Your task to perform on an android device: Do I have any events today? Image 0: 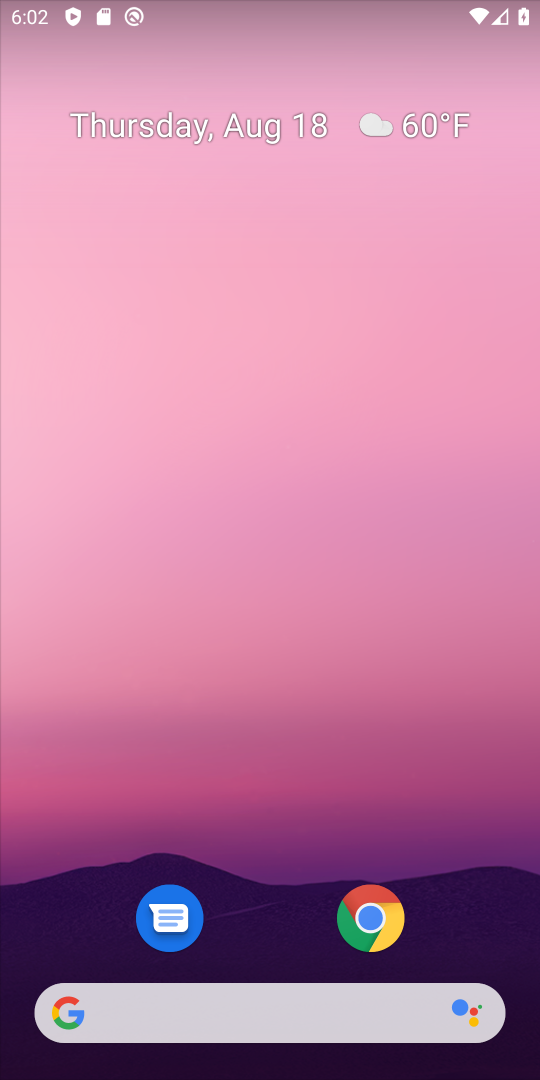
Step 0: drag from (259, 942) to (362, 92)
Your task to perform on an android device: Do I have any events today? Image 1: 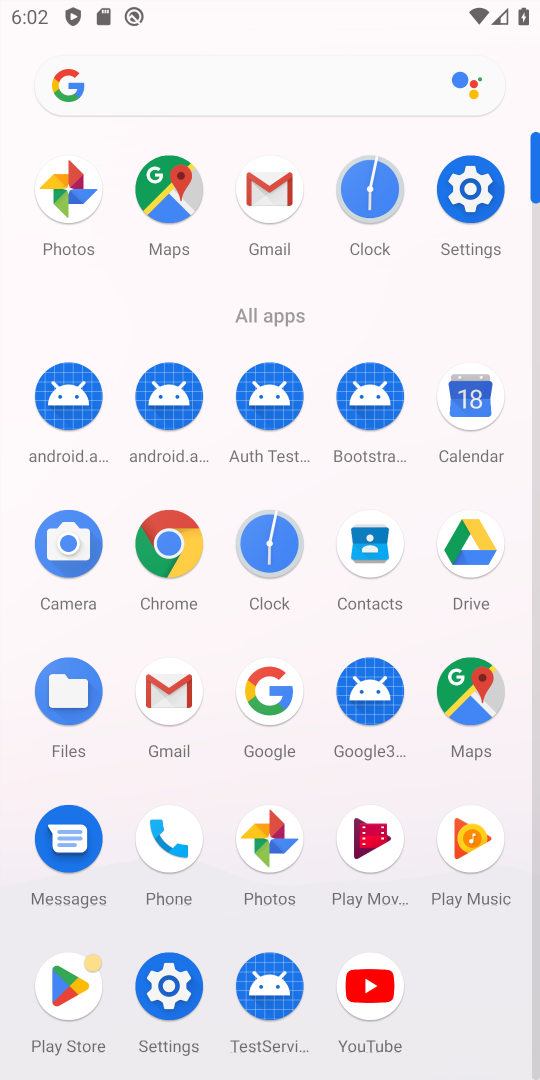
Step 1: click (474, 398)
Your task to perform on an android device: Do I have any events today? Image 2: 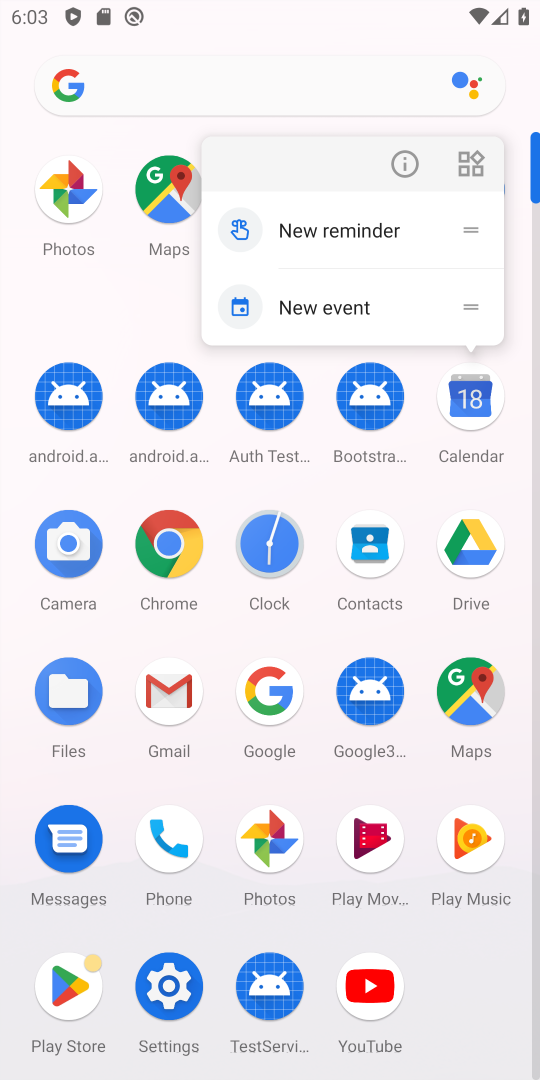
Step 2: click (468, 418)
Your task to perform on an android device: Do I have any events today? Image 3: 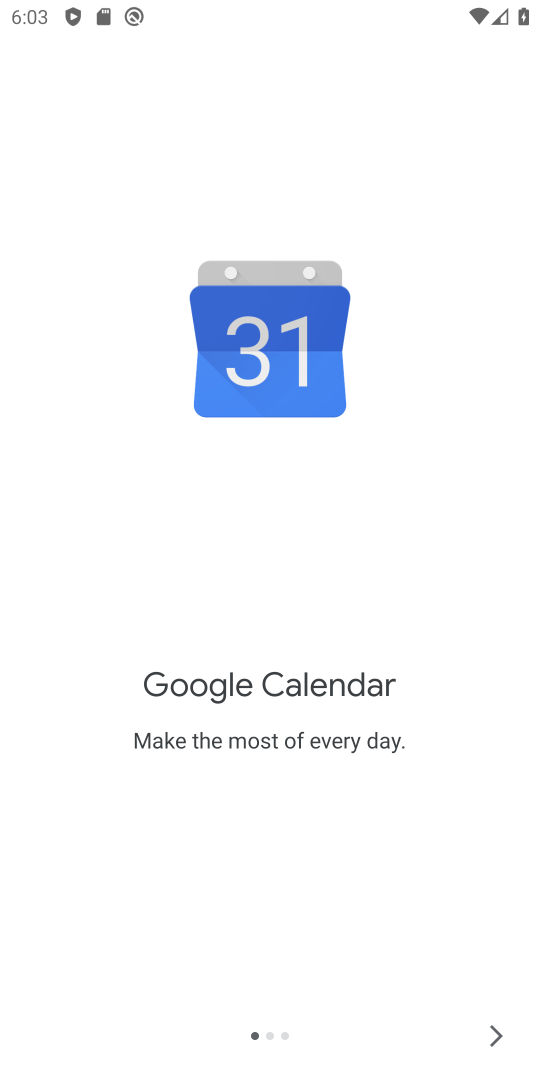
Step 3: click (499, 1030)
Your task to perform on an android device: Do I have any events today? Image 4: 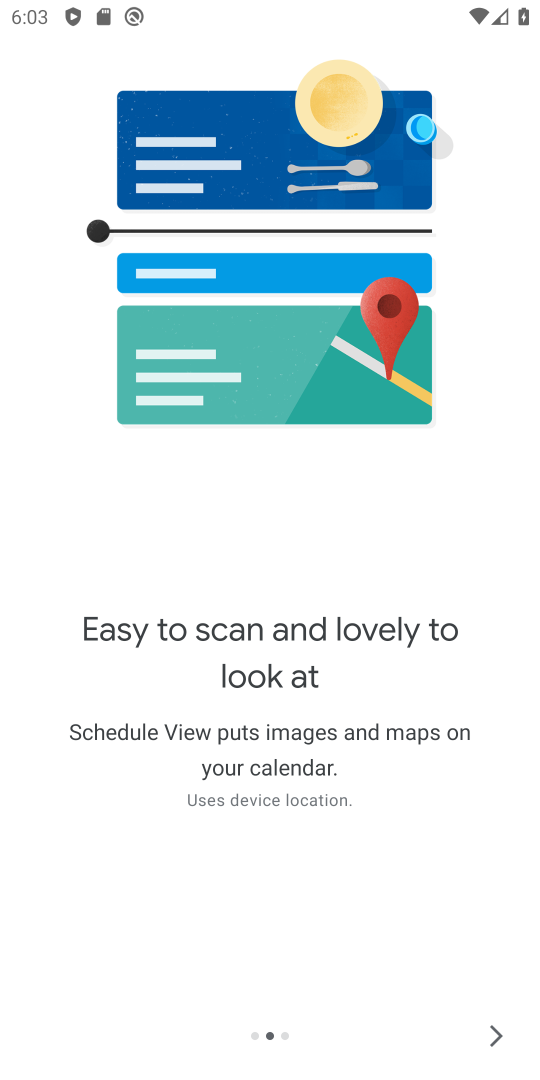
Step 4: click (497, 1028)
Your task to perform on an android device: Do I have any events today? Image 5: 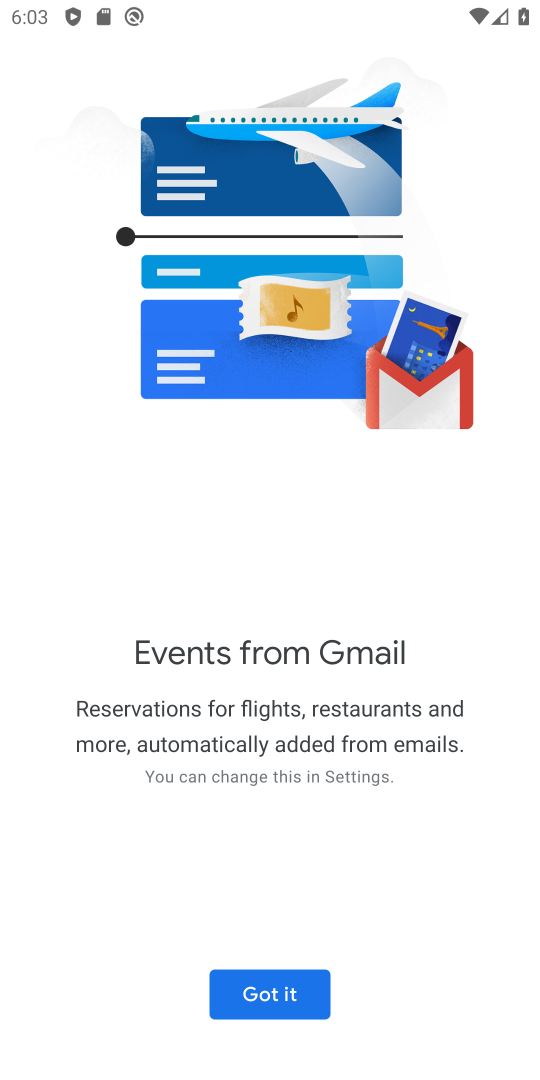
Step 5: click (275, 1003)
Your task to perform on an android device: Do I have any events today? Image 6: 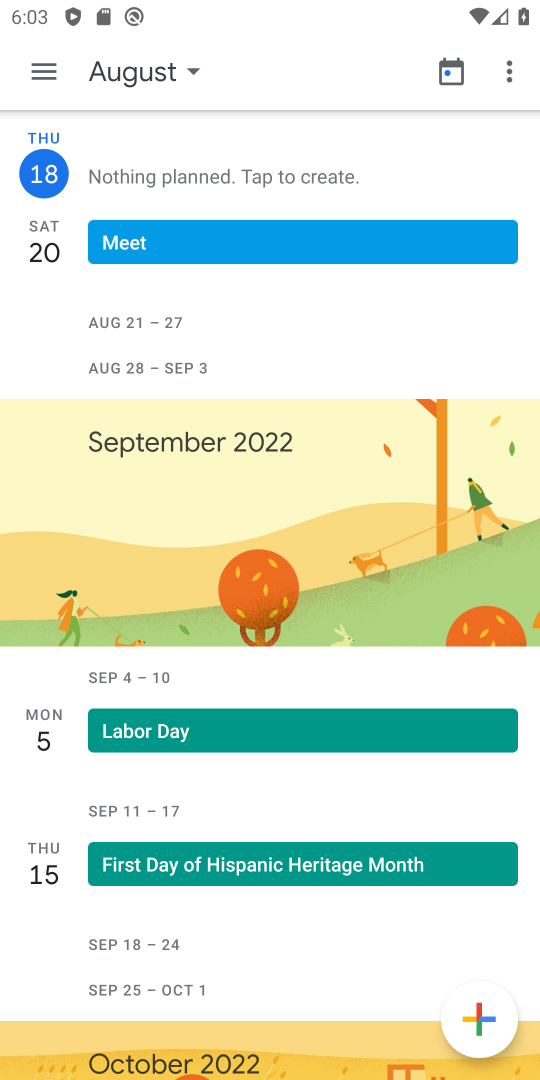
Step 6: click (192, 71)
Your task to perform on an android device: Do I have any events today? Image 7: 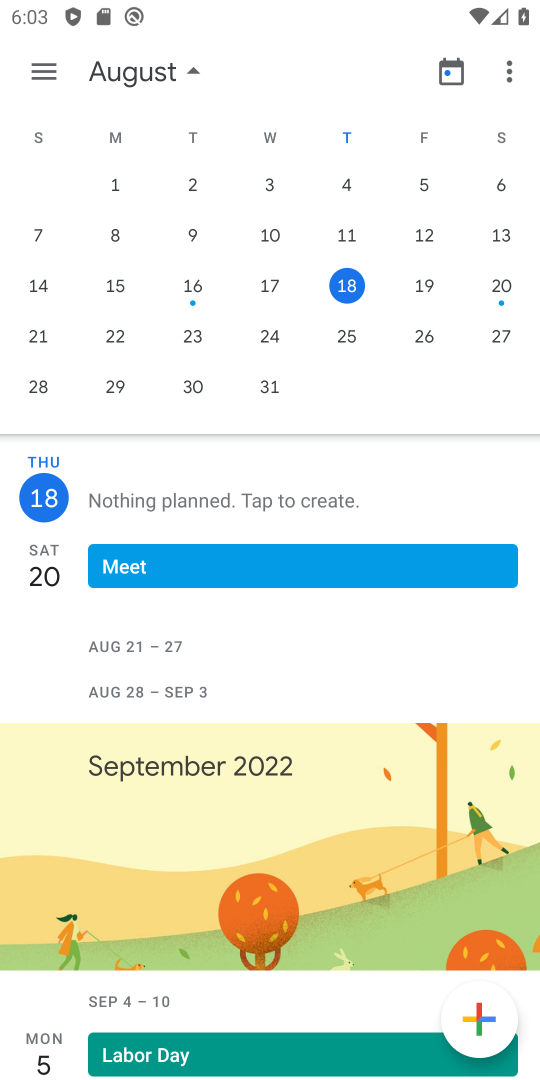
Step 7: click (346, 290)
Your task to perform on an android device: Do I have any events today? Image 8: 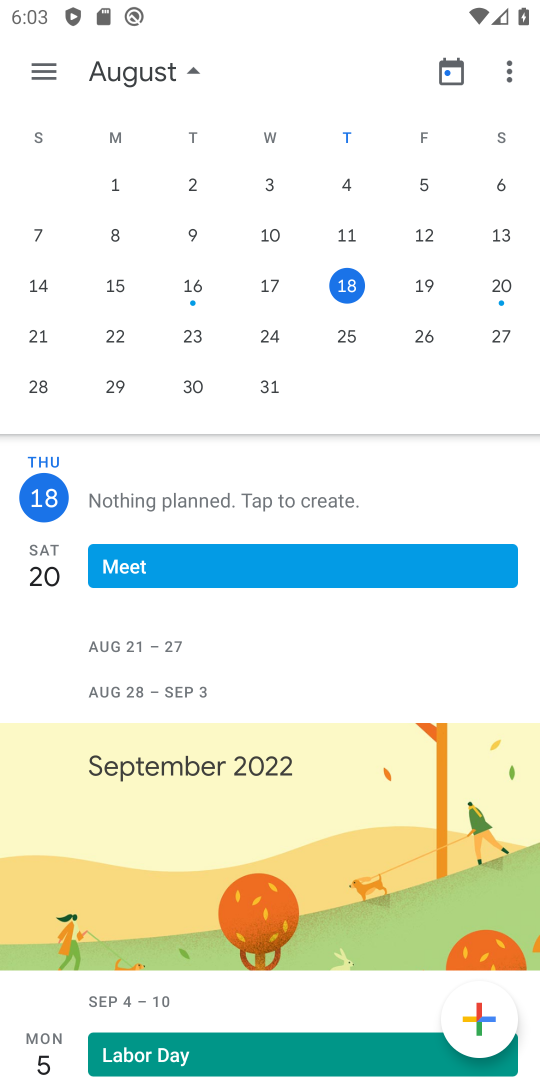
Step 8: task complete